Your task to perform on an android device: Go to network settings Image 0: 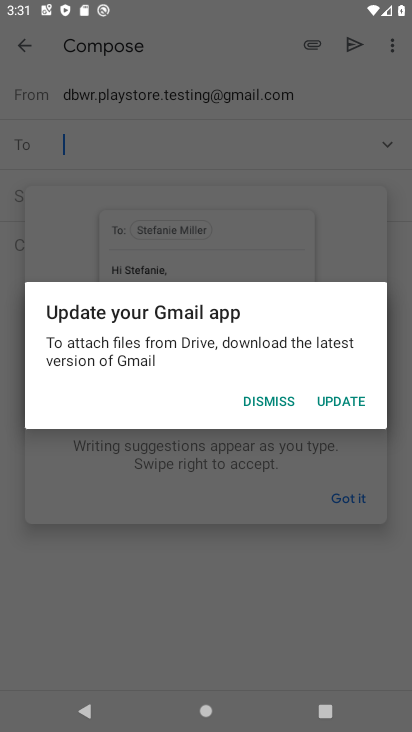
Step 0: press home button
Your task to perform on an android device: Go to network settings Image 1: 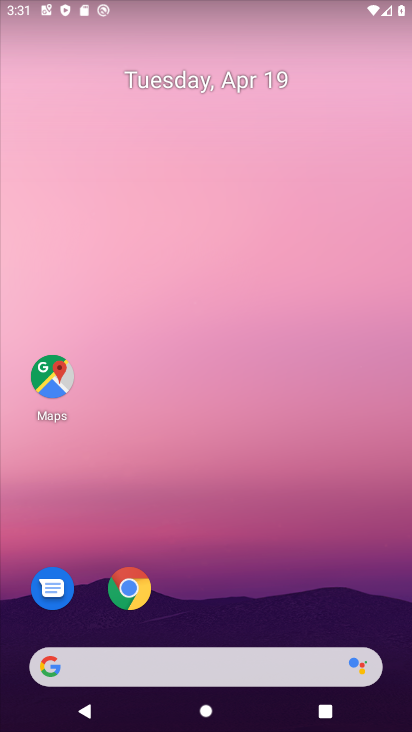
Step 1: drag from (224, 610) to (218, 3)
Your task to perform on an android device: Go to network settings Image 2: 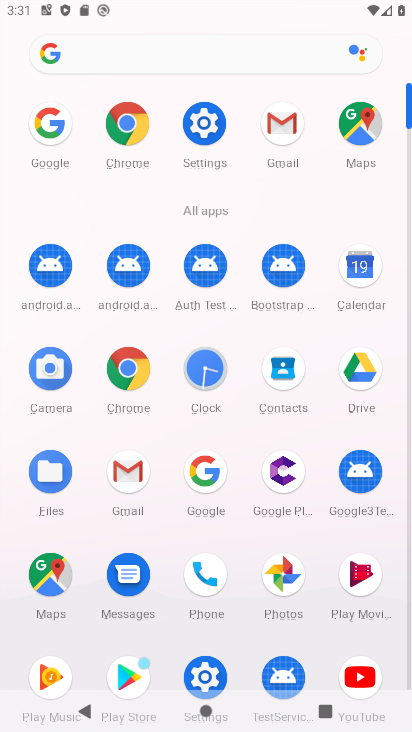
Step 2: click (201, 129)
Your task to perform on an android device: Go to network settings Image 3: 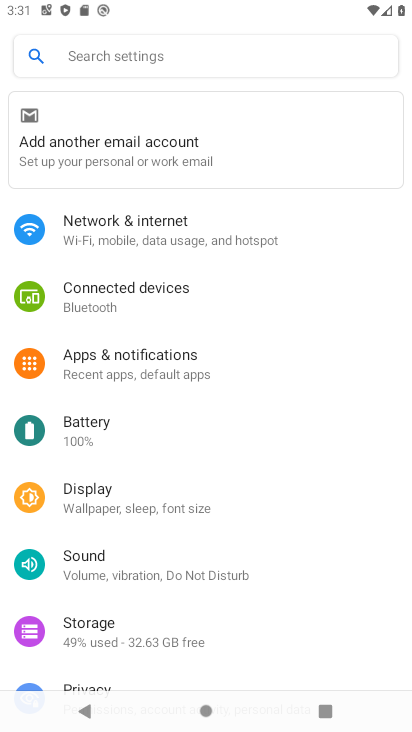
Step 3: click (191, 223)
Your task to perform on an android device: Go to network settings Image 4: 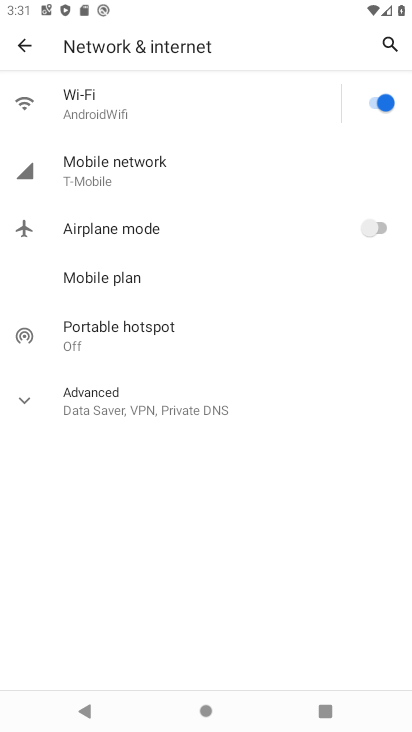
Step 4: click (166, 169)
Your task to perform on an android device: Go to network settings Image 5: 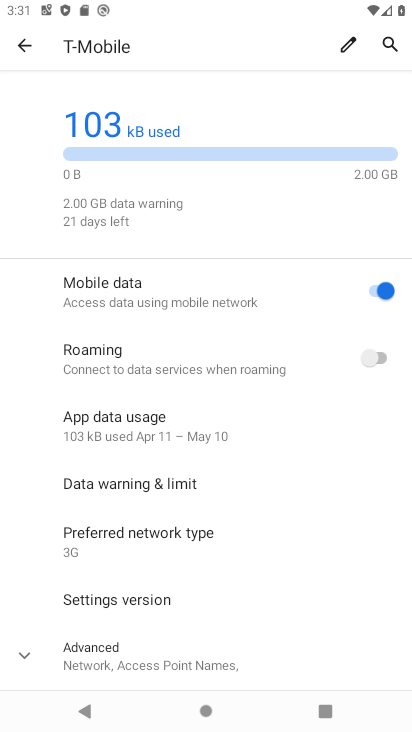
Step 5: drag from (223, 538) to (189, 133)
Your task to perform on an android device: Go to network settings Image 6: 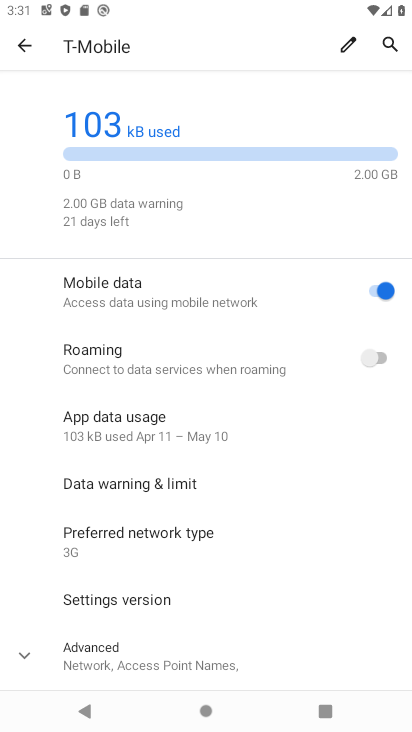
Step 6: click (164, 663)
Your task to perform on an android device: Go to network settings Image 7: 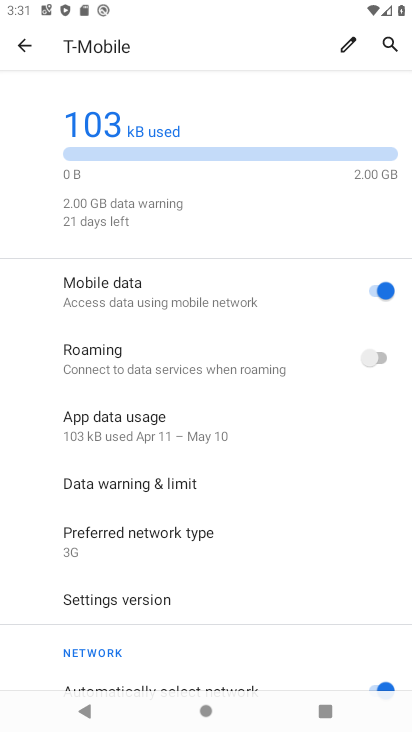
Step 7: click (123, 675)
Your task to perform on an android device: Go to network settings Image 8: 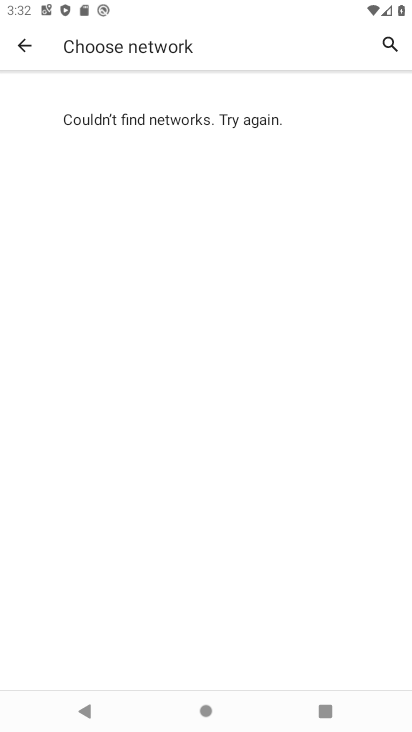
Step 8: task complete